Your task to perform on an android device: empty trash in google photos Image 0: 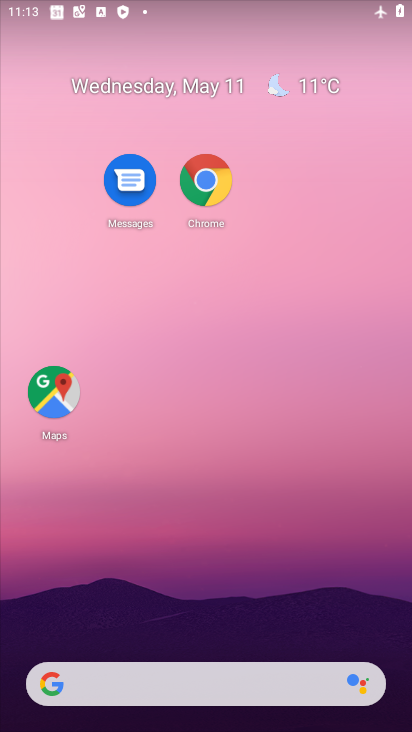
Step 0: click (375, 495)
Your task to perform on an android device: empty trash in google photos Image 1: 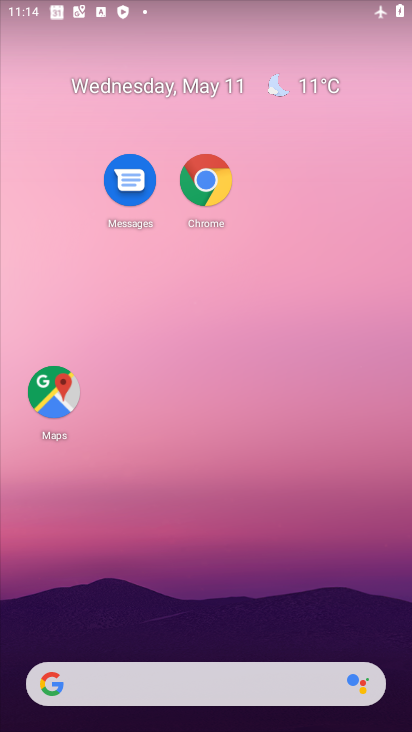
Step 1: click (231, 588)
Your task to perform on an android device: empty trash in google photos Image 2: 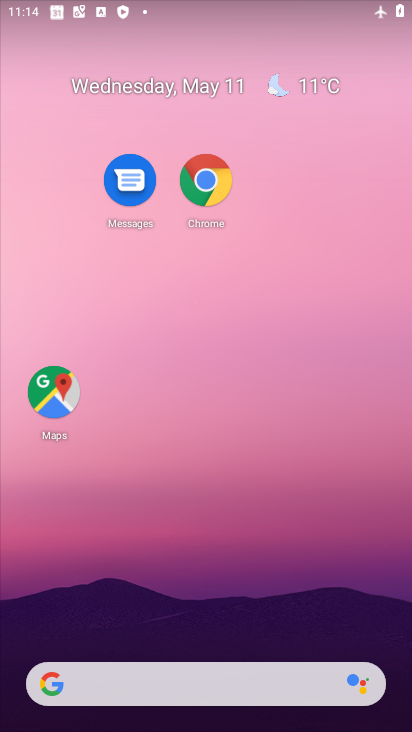
Step 2: drag from (242, 578) to (361, 170)
Your task to perform on an android device: empty trash in google photos Image 3: 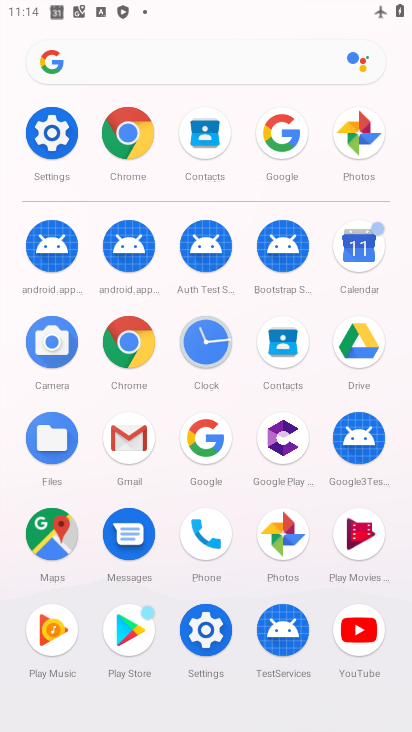
Step 3: click (235, 595)
Your task to perform on an android device: empty trash in google photos Image 4: 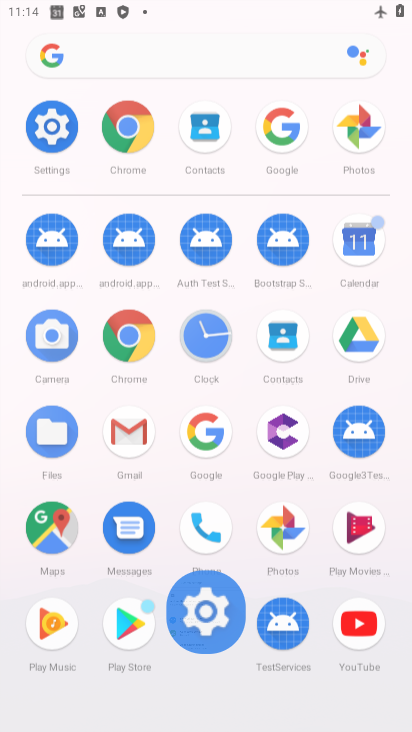
Step 4: click (286, 534)
Your task to perform on an android device: empty trash in google photos Image 5: 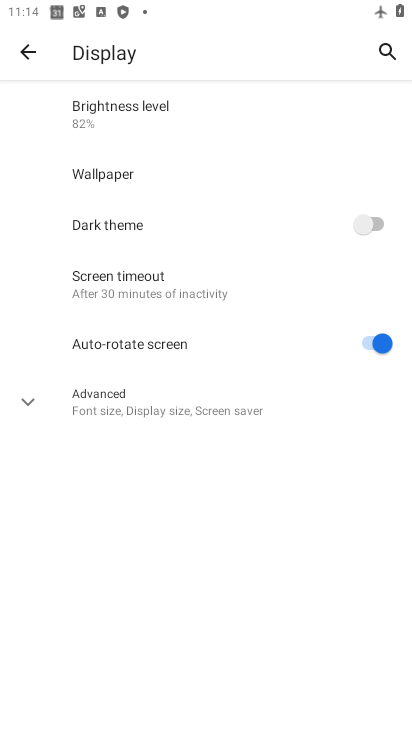
Step 5: press back button
Your task to perform on an android device: empty trash in google photos Image 6: 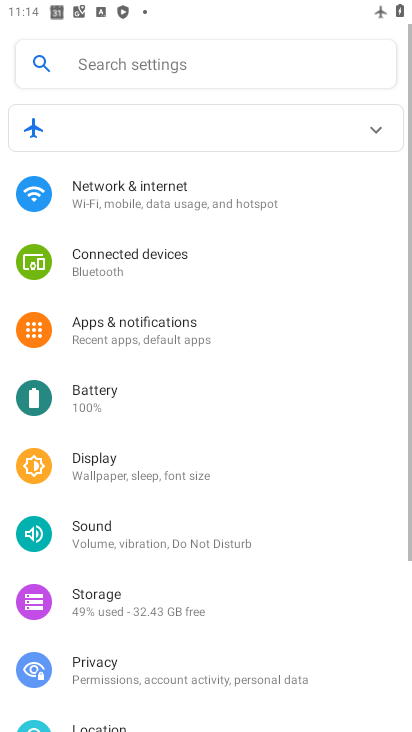
Step 6: press home button
Your task to perform on an android device: empty trash in google photos Image 7: 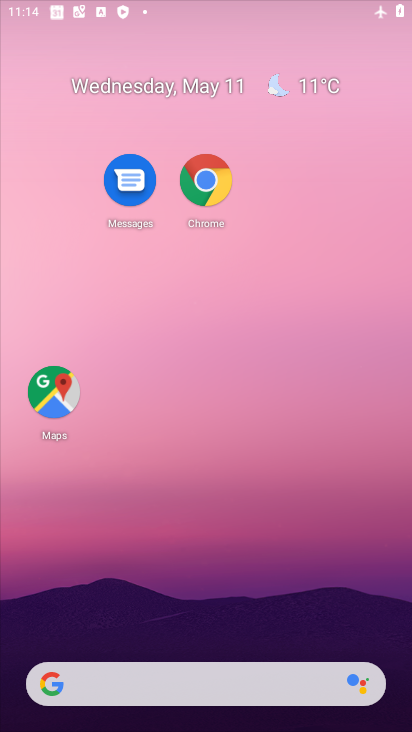
Step 7: drag from (187, 572) to (207, 70)
Your task to perform on an android device: empty trash in google photos Image 8: 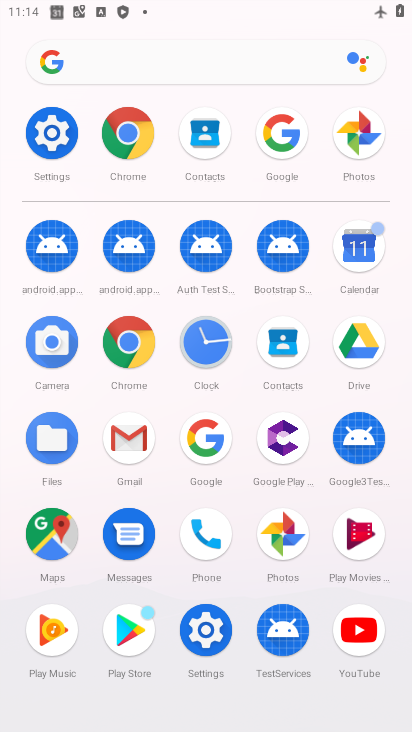
Step 8: click (277, 541)
Your task to perform on an android device: empty trash in google photos Image 9: 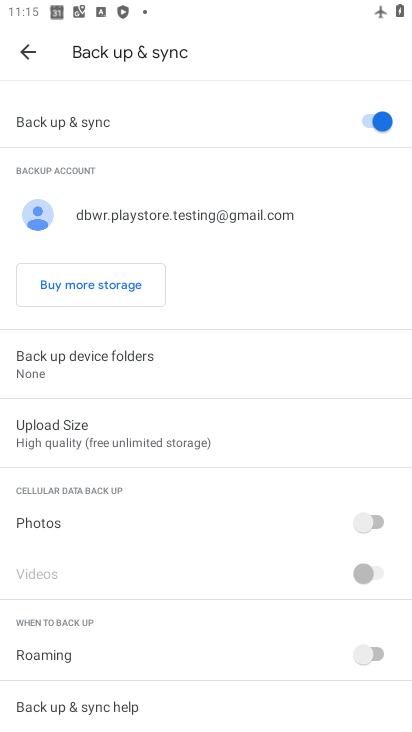
Step 9: press back button
Your task to perform on an android device: empty trash in google photos Image 10: 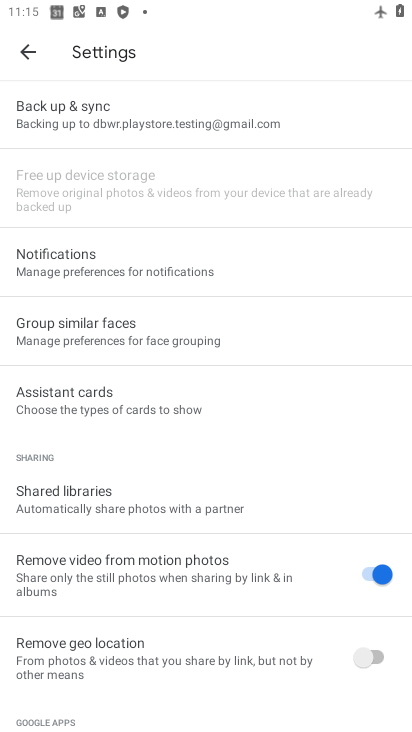
Step 10: press back button
Your task to perform on an android device: empty trash in google photos Image 11: 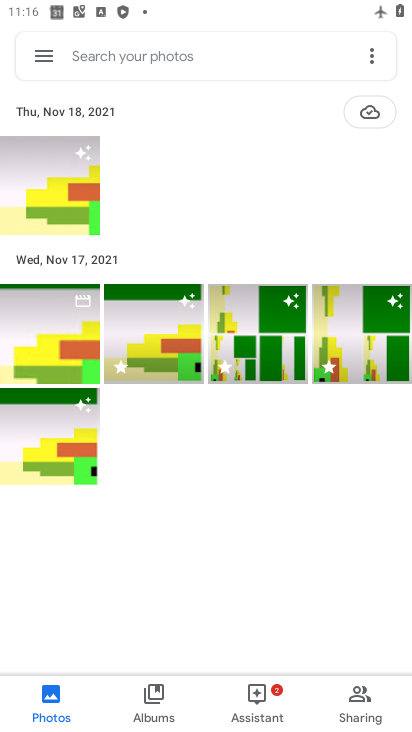
Step 11: click (46, 62)
Your task to perform on an android device: empty trash in google photos Image 12: 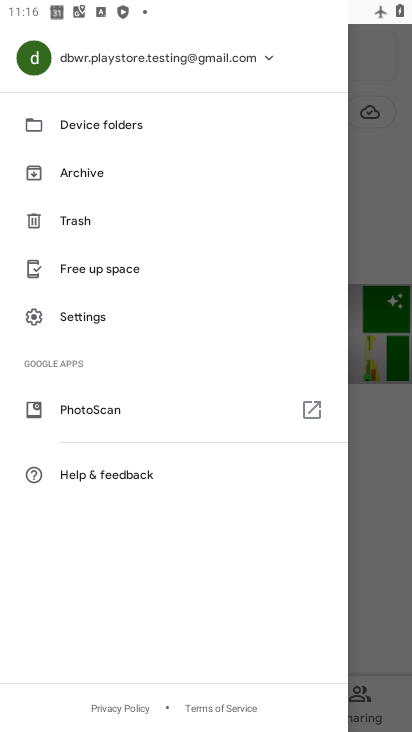
Step 12: click (108, 230)
Your task to perform on an android device: empty trash in google photos Image 13: 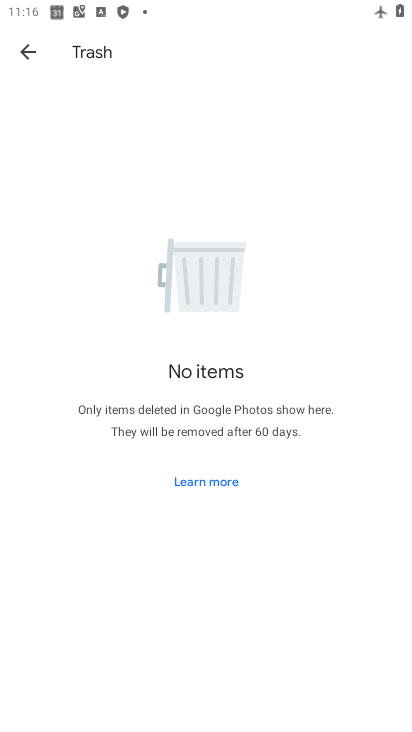
Step 13: task complete